Your task to perform on an android device: Open CNN.com Image 0: 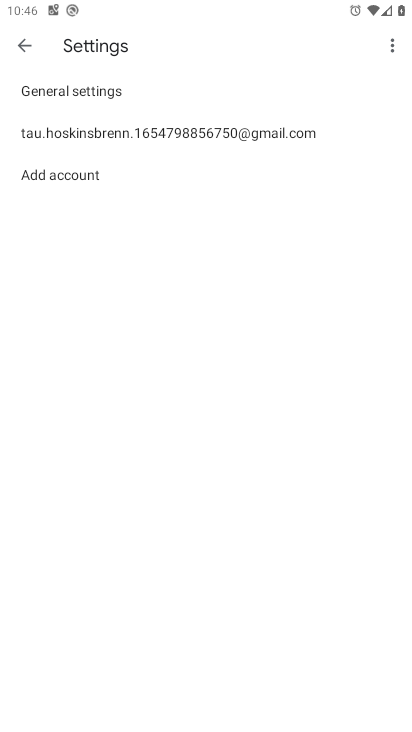
Step 0: press home button
Your task to perform on an android device: Open CNN.com Image 1: 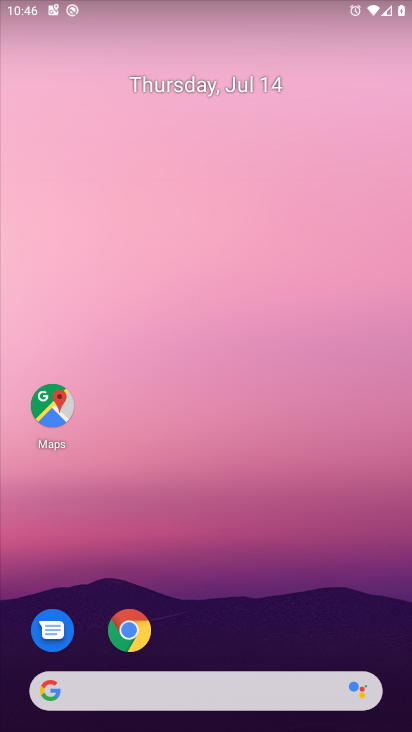
Step 1: click (136, 695)
Your task to perform on an android device: Open CNN.com Image 2: 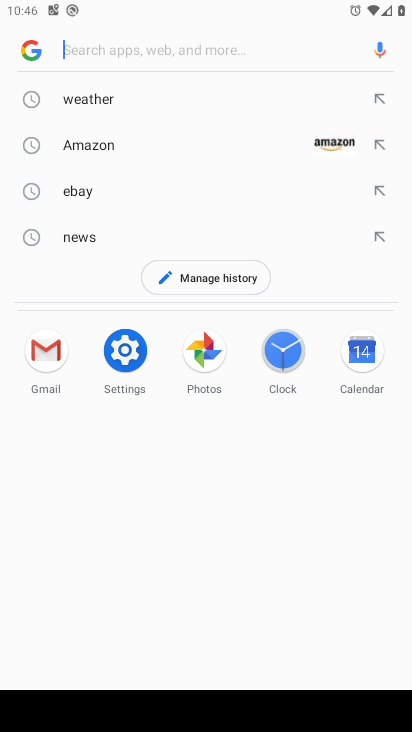
Step 2: type "CNN.com"
Your task to perform on an android device: Open CNN.com Image 3: 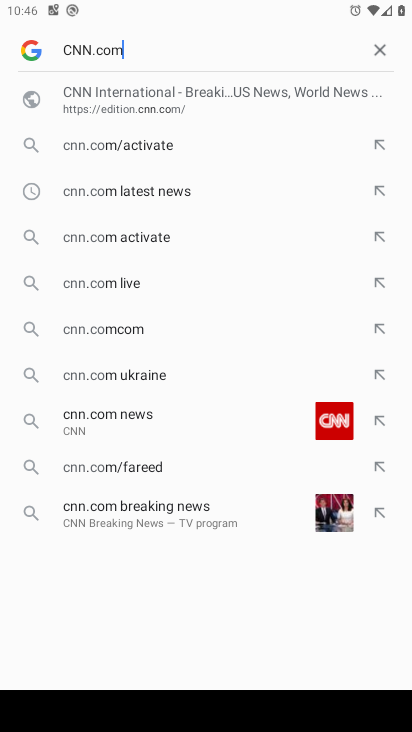
Step 3: type ""
Your task to perform on an android device: Open CNN.com Image 4: 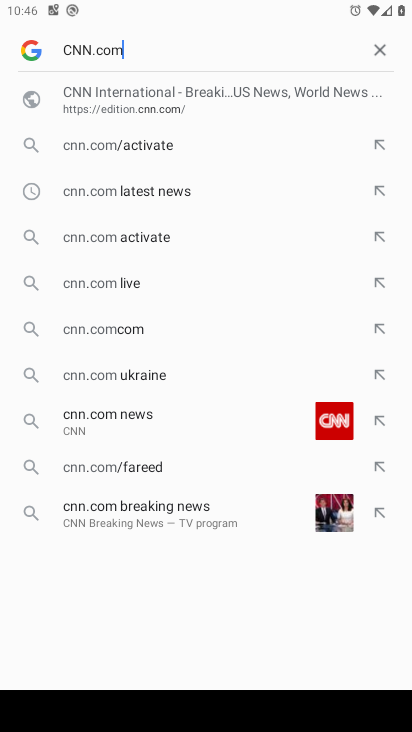
Step 4: type ""
Your task to perform on an android device: Open CNN.com Image 5: 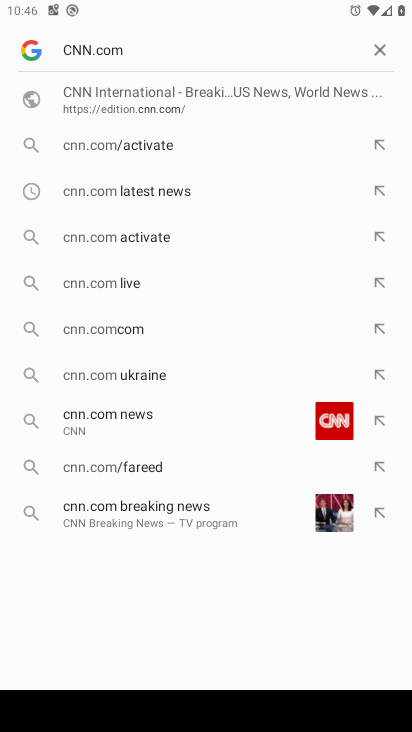
Step 5: type ""
Your task to perform on an android device: Open CNN.com Image 6: 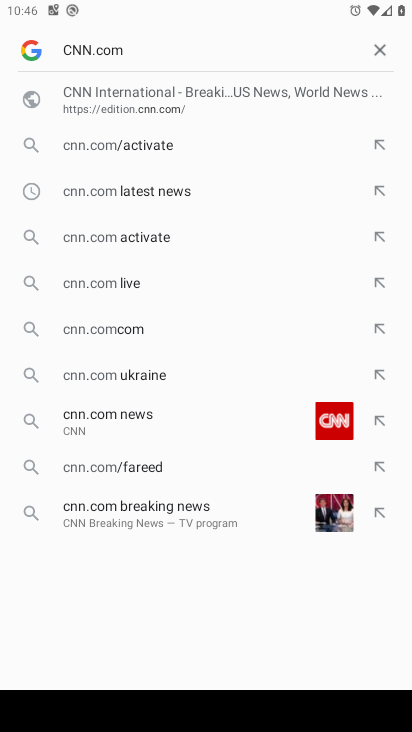
Step 6: type ""
Your task to perform on an android device: Open CNN.com Image 7: 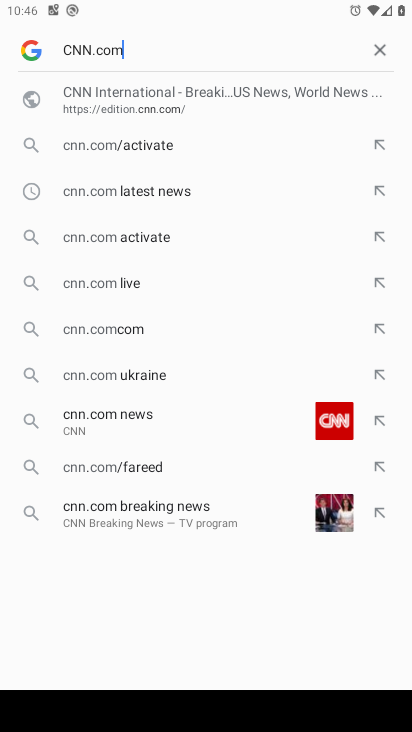
Step 7: task complete